Your task to perform on an android device: turn off priority inbox in the gmail app Image 0: 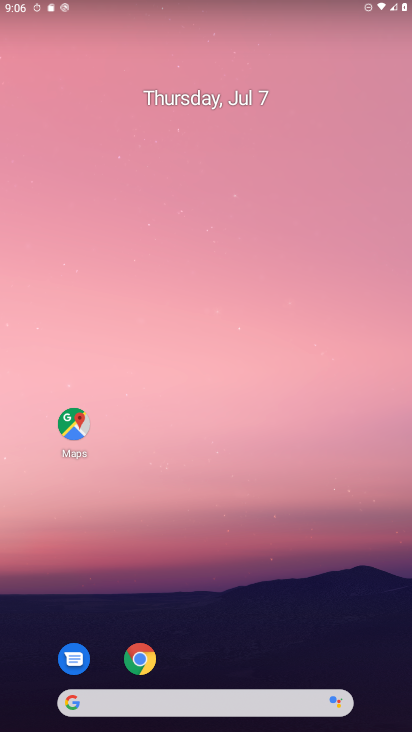
Step 0: drag from (397, 669) to (247, 193)
Your task to perform on an android device: turn off priority inbox in the gmail app Image 1: 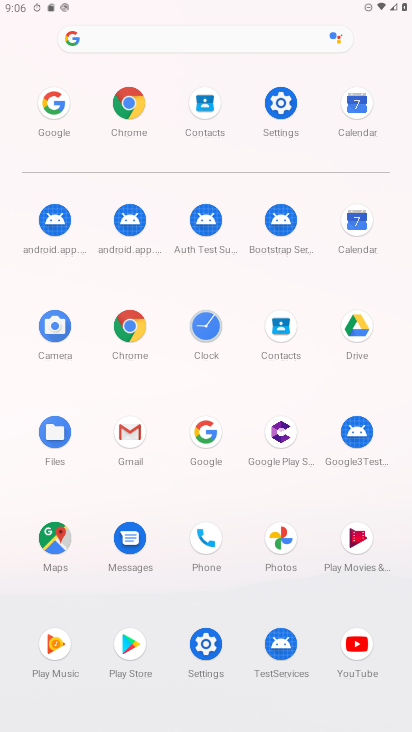
Step 1: click (147, 447)
Your task to perform on an android device: turn off priority inbox in the gmail app Image 2: 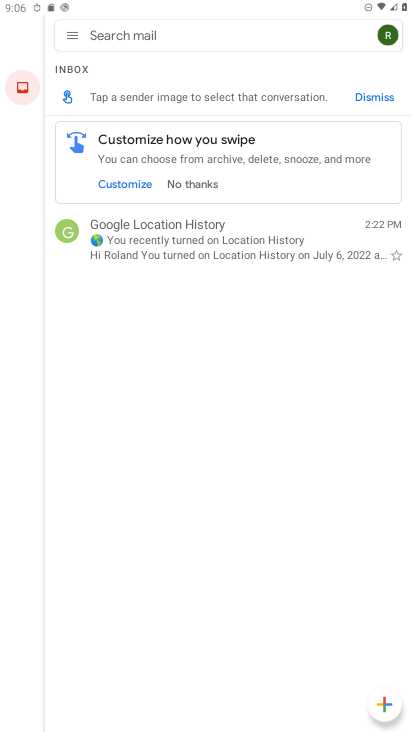
Step 2: click (62, 31)
Your task to perform on an android device: turn off priority inbox in the gmail app Image 3: 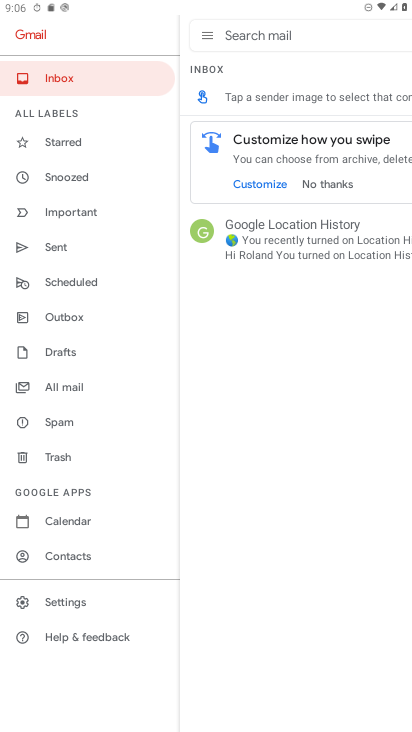
Step 3: click (65, 602)
Your task to perform on an android device: turn off priority inbox in the gmail app Image 4: 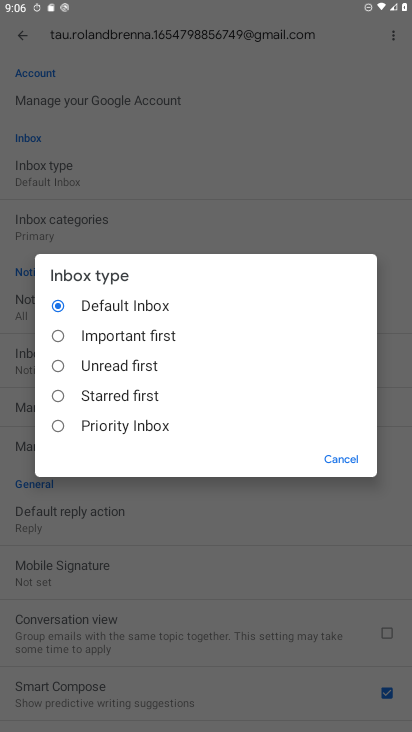
Step 4: task complete